Your task to perform on an android device: visit the assistant section in the google photos Image 0: 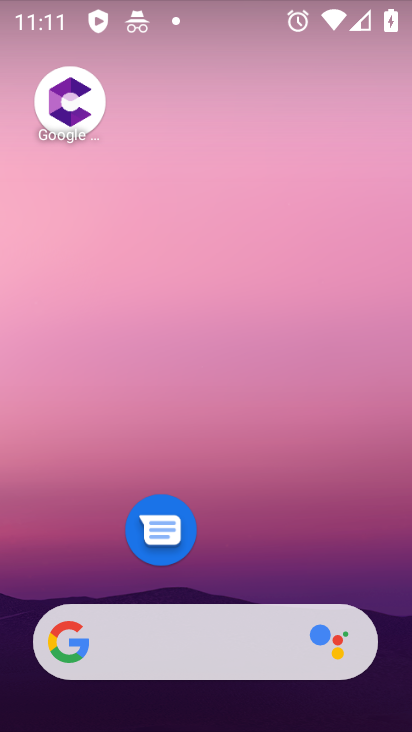
Step 0: drag from (293, 698) to (172, 195)
Your task to perform on an android device: visit the assistant section in the google photos Image 1: 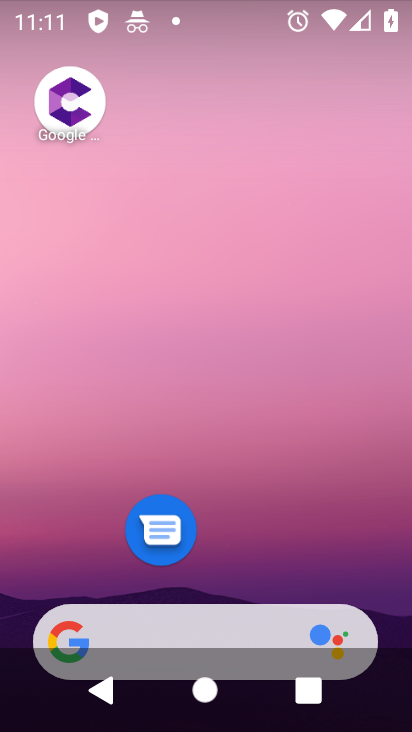
Step 1: drag from (251, 639) to (189, 111)
Your task to perform on an android device: visit the assistant section in the google photos Image 2: 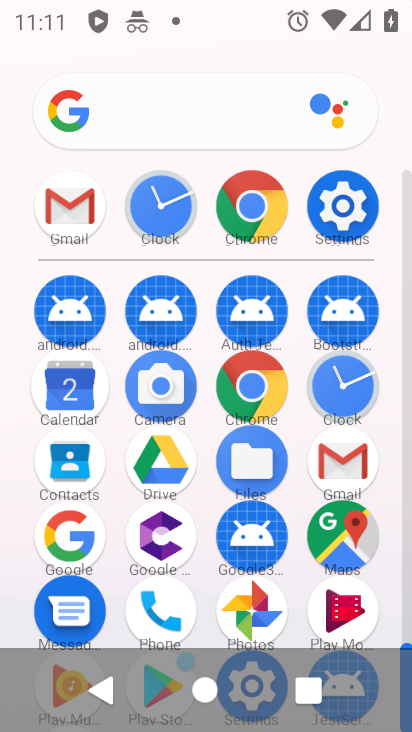
Step 2: drag from (275, 585) to (205, 101)
Your task to perform on an android device: visit the assistant section in the google photos Image 3: 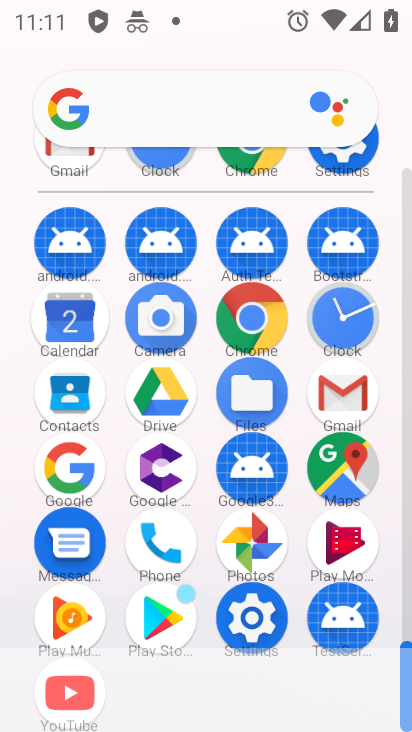
Step 3: drag from (252, 427) to (221, 86)
Your task to perform on an android device: visit the assistant section in the google photos Image 4: 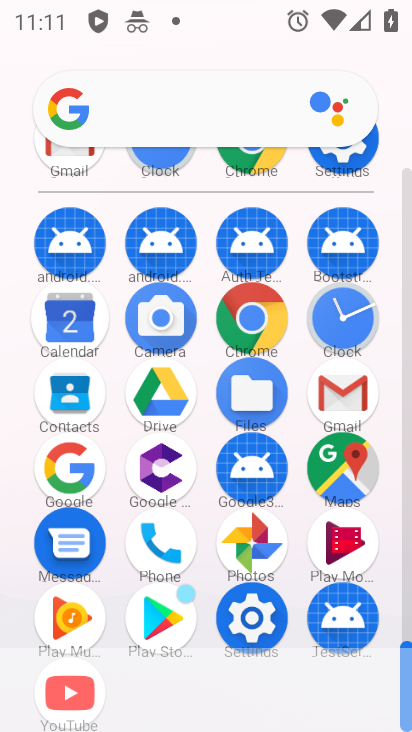
Step 4: click (259, 547)
Your task to perform on an android device: visit the assistant section in the google photos Image 5: 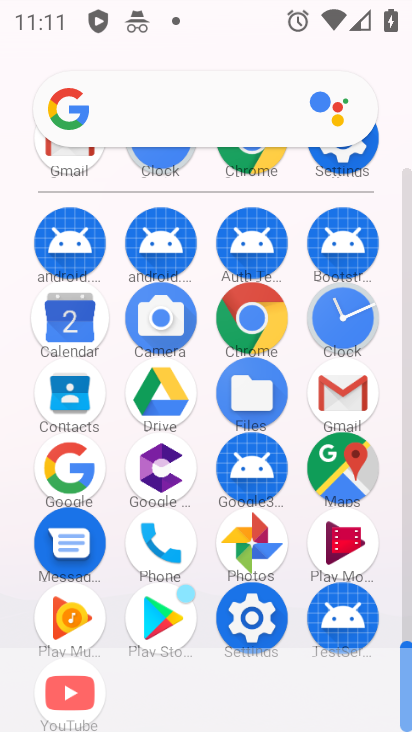
Step 5: click (259, 547)
Your task to perform on an android device: visit the assistant section in the google photos Image 6: 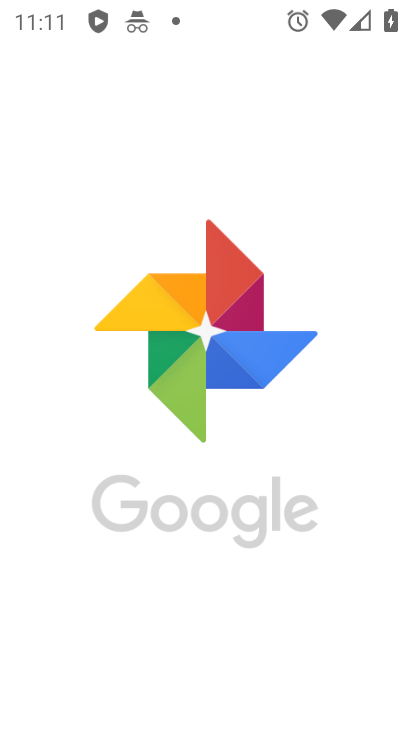
Step 6: click (256, 541)
Your task to perform on an android device: visit the assistant section in the google photos Image 7: 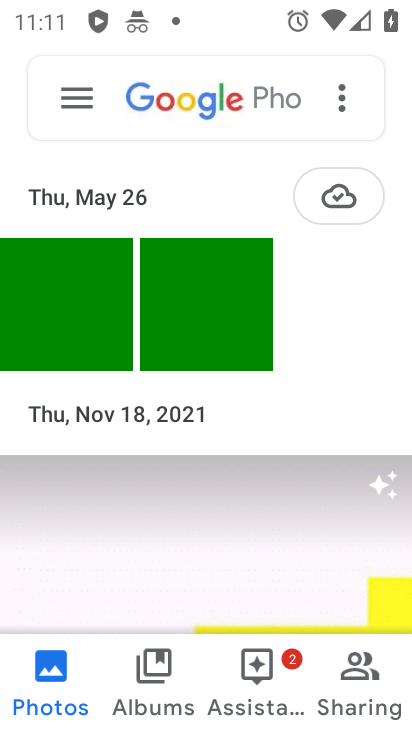
Step 7: drag from (141, 305) to (127, 234)
Your task to perform on an android device: visit the assistant section in the google photos Image 8: 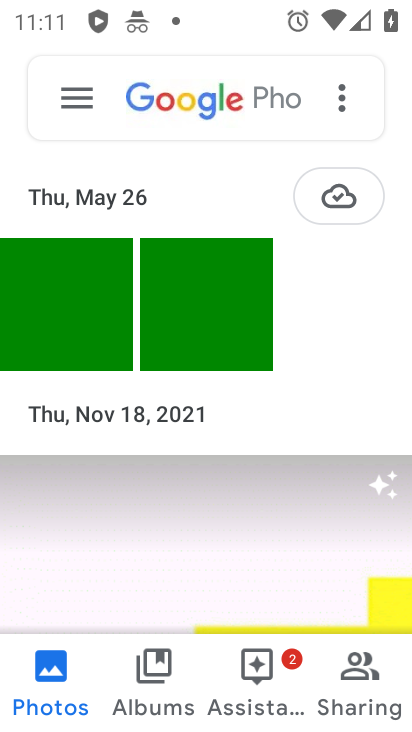
Step 8: drag from (203, 526) to (171, 238)
Your task to perform on an android device: visit the assistant section in the google photos Image 9: 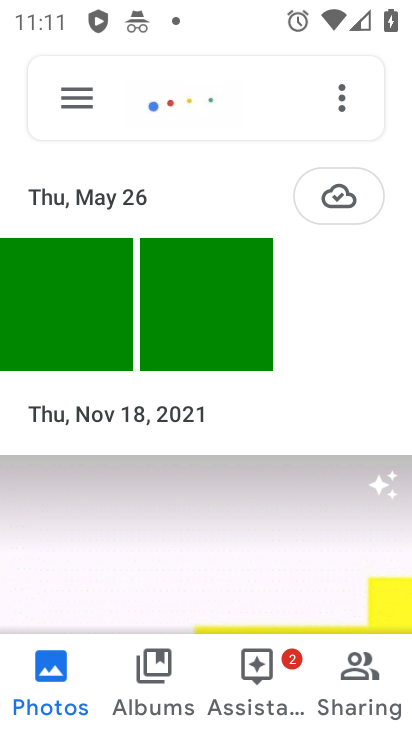
Step 9: drag from (243, 468) to (199, 148)
Your task to perform on an android device: visit the assistant section in the google photos Image 10: 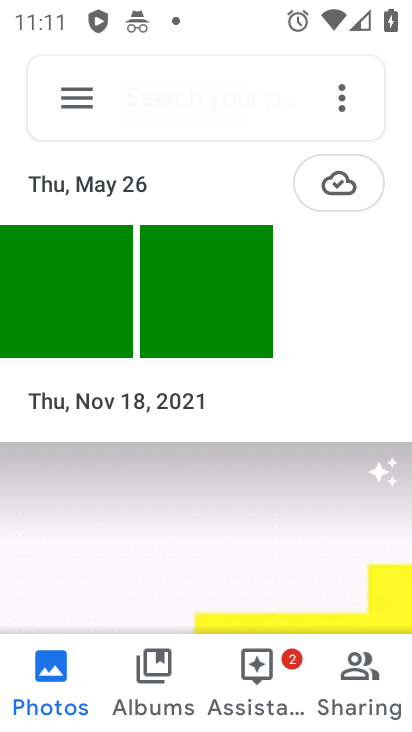
Step 10: drag from (194, 414) to (157, 157)
Your task to perform on an android device: visit the assistant section in the google photos Image 11: 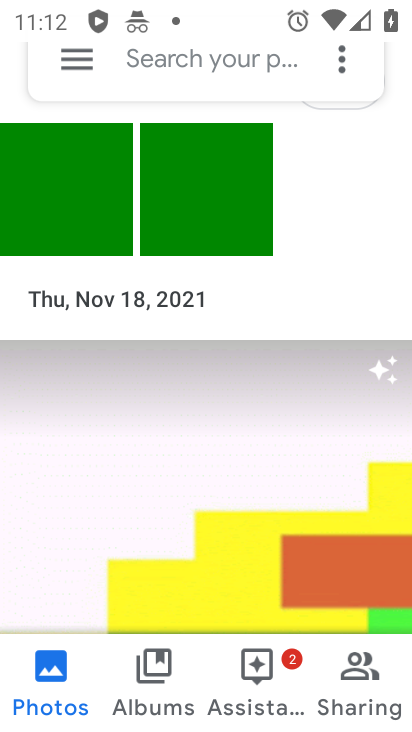
Step 11: drag from (246, 385) to (187, 107)
Your task to perform on an android device: visit the assistant section in the google photos Image 12: 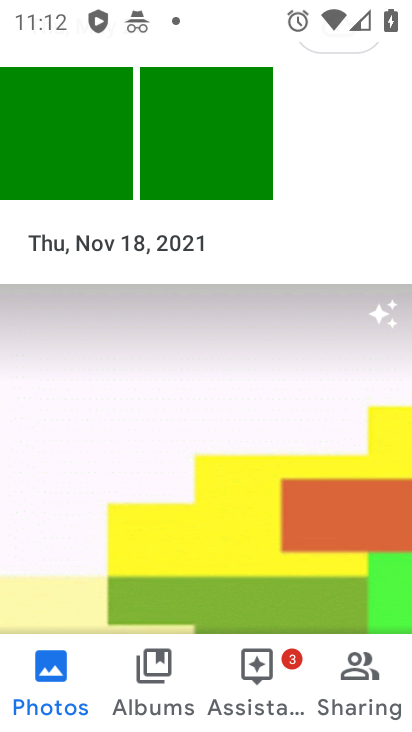
Step 12: drag from (194, 457) to (104, 183)
Your task to perform on an android device: visit the assistant section in the google photos Image 13: 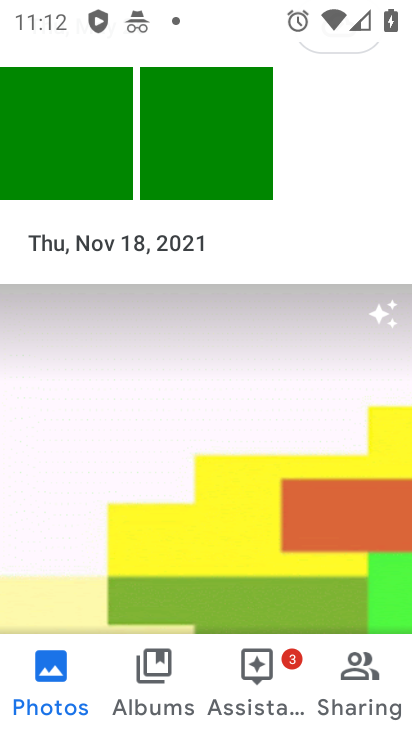
Step 13: drag from (173, 431) to (123, 128)
Your task to perform on an android device: visit the assistant section in the google photos Image 14: 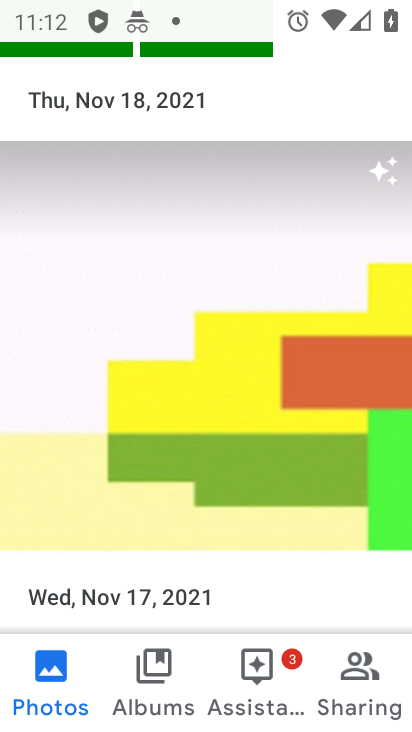
Step 14: drag from (175, 335) to (142, 102)
Your task to perform on an android device: visit the assistant section in the google photos Image 15: 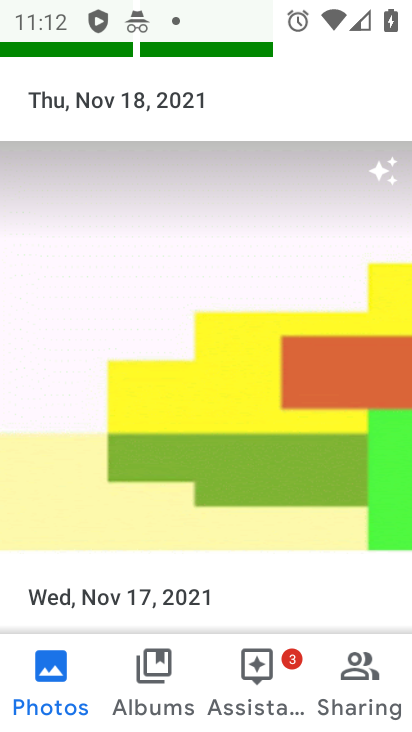
Step 15: drag from (171, 290) to (143, 163)
Your task to perform on an android device: visit the assistant section in the google photos Image 16: 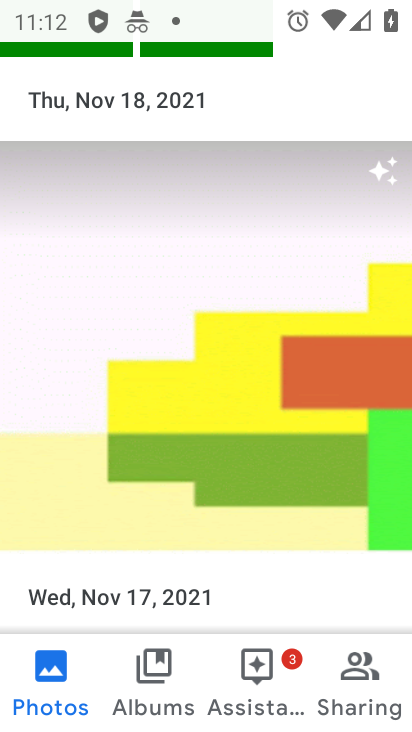
Step 16: drag from (172, 231) to (136, 44)
Your task to perform on an android device: visit the assistant section in the google photos Image 17: 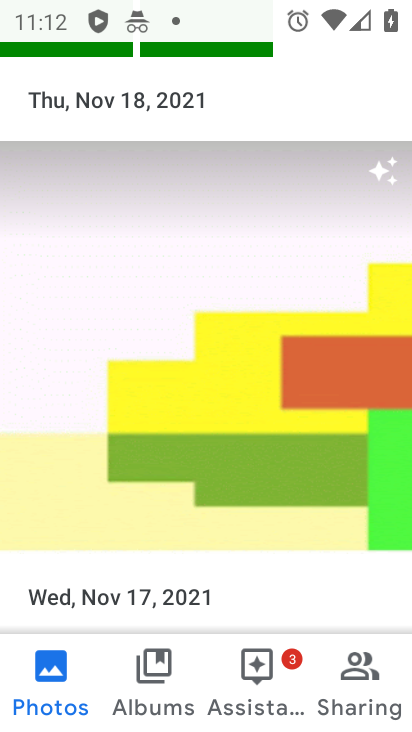
Step 17: drag from (199, 389) to (131, 102)
Your task to perform on an android device: visit the assistant section in the google photos Image 18: 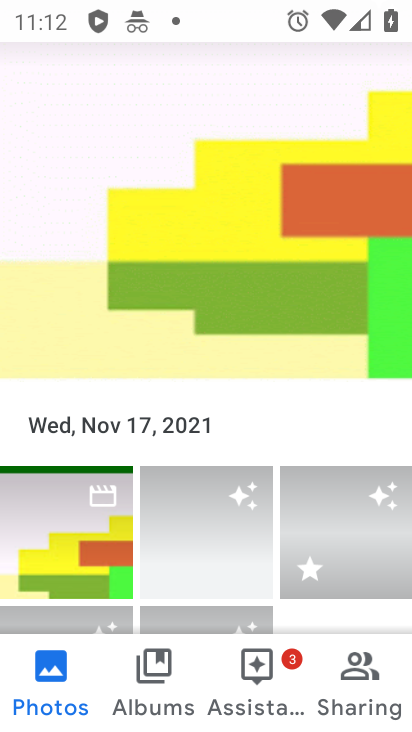
Step 18: drag from (204, 482) to (146, 178)
Your task to perform on an android device: visit the assistant section in the google photos Image 19: 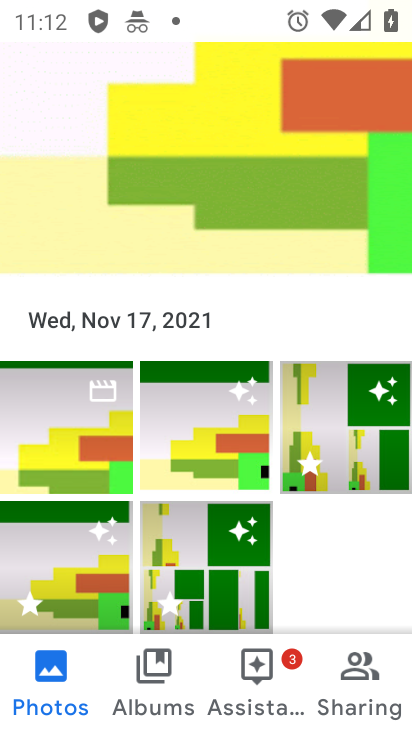
Step 19: drag from (173, 360) to (153, 107)
Your task to perform on an android device: visit the assistant section in the google photos Image 20: 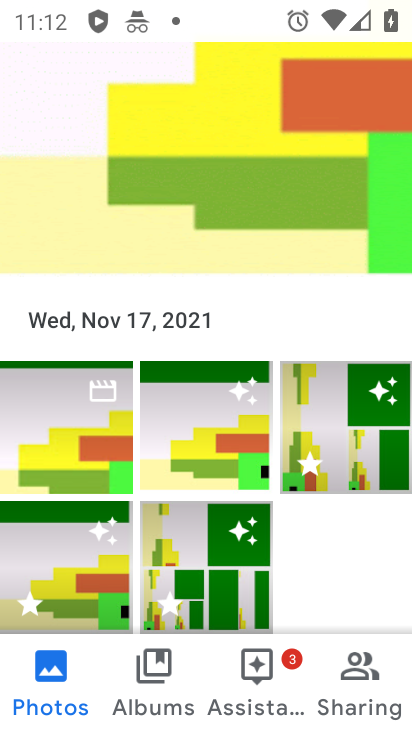
Step 20: drag from (199, 292) to (185, 157)
Your task to perform on an android device: visit the assistant section in the google photos Image 21: 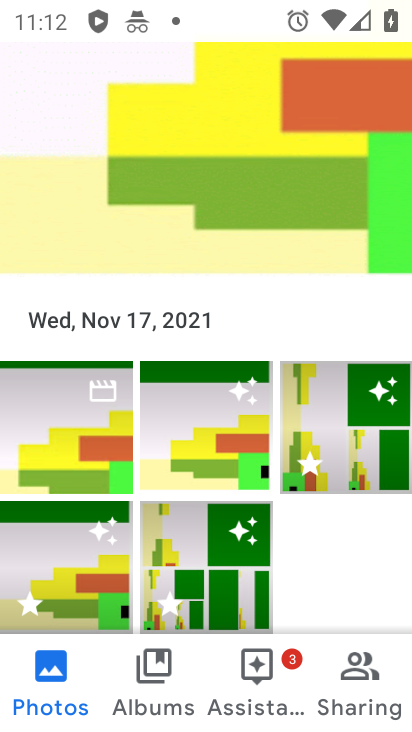
Step 21: drag from (155, 478) to (106, 202)
Your task to perform on an android device: visit the assistant section in the google photos Image 22: 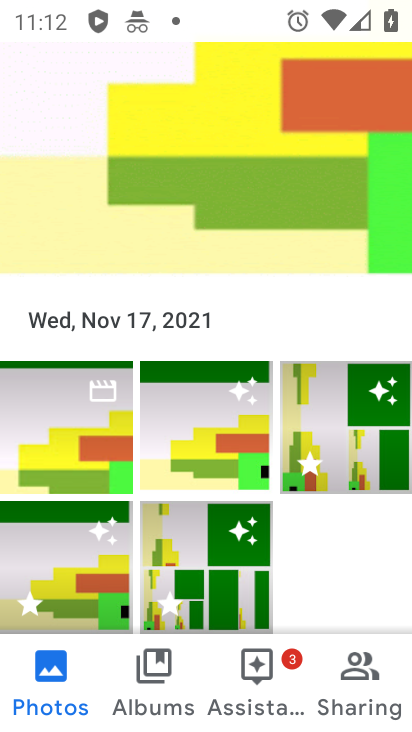
Step 22: drag from (169, 543) to (139, 176)
Your task to perform on an android device: visit the assistant section in the google photos Image 23: 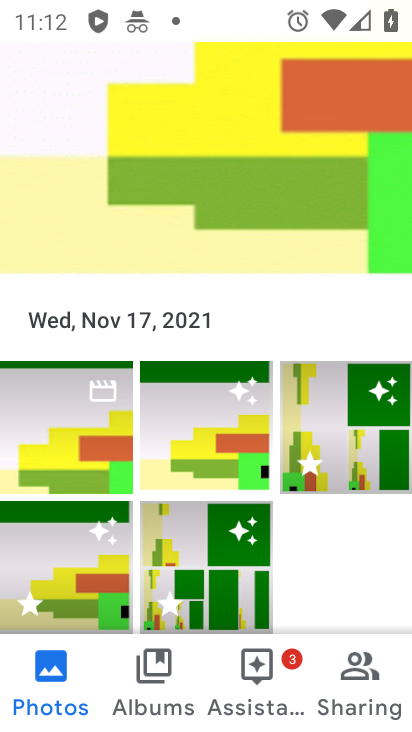
Step 23: drag from (193, 530) to (139, 133)
Your task to perform on an android device: visit the assistant section in the google photos Image 24: 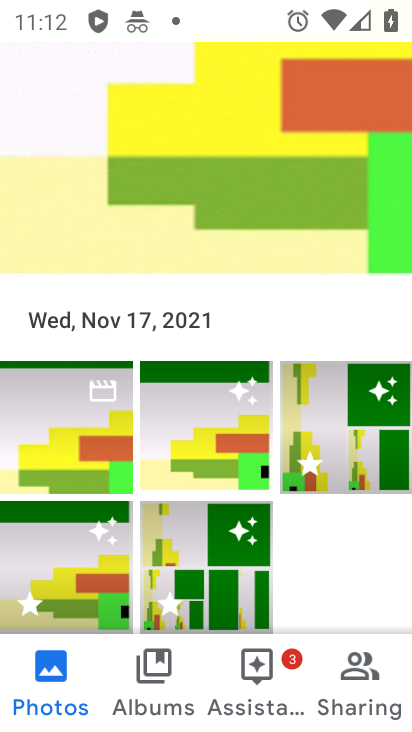
Step 24: drag from (258, 446) to (208, 219)
Your task to perform on an android device: visit the assistant section in the google photos Image 25: 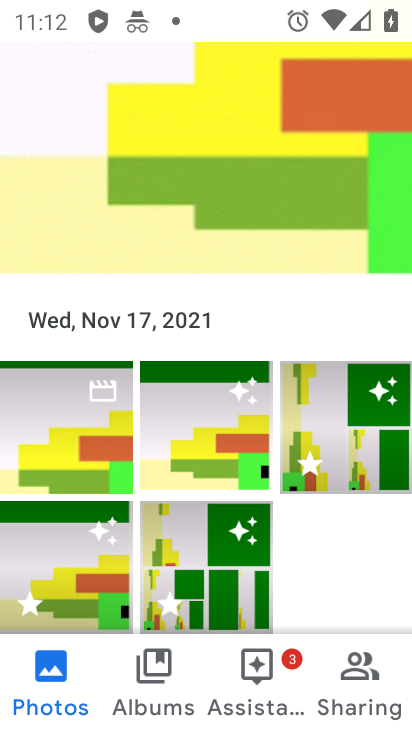
Step 25: drag from (245, 546) to (180, 199)
Your task to perform on an android device: visit the assistant section in the google photos Image 26: 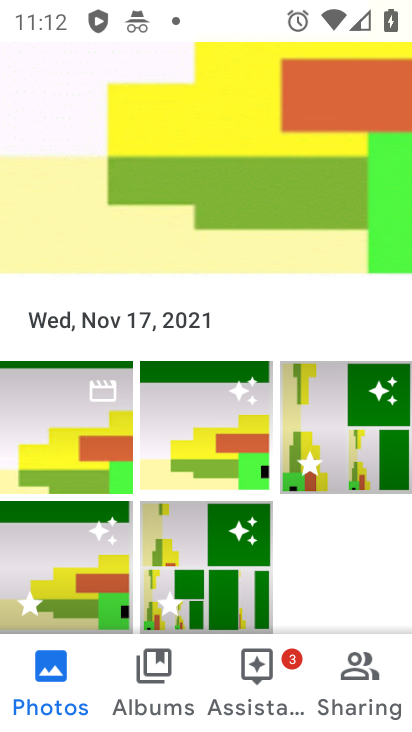
Step 26: drag from (218, 544) to (184, 239)
Your task to perform on an android device: visit the assistant section in the google photos Image 27: 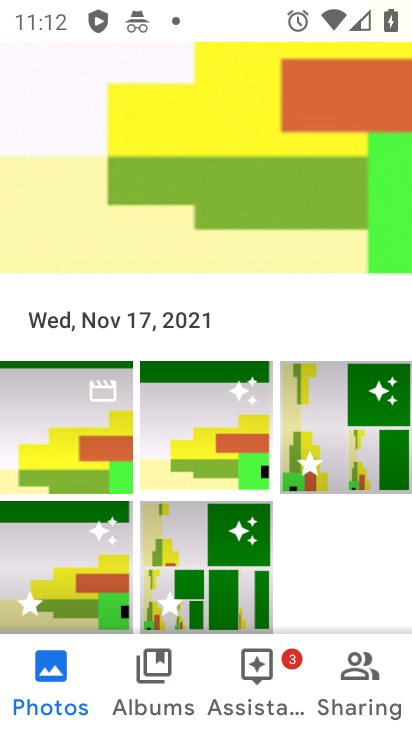
Step 27: drag from (208, 563) to (188, 295)
Your task to perform on an android device: visit the assistant section in the google photos Image 28: 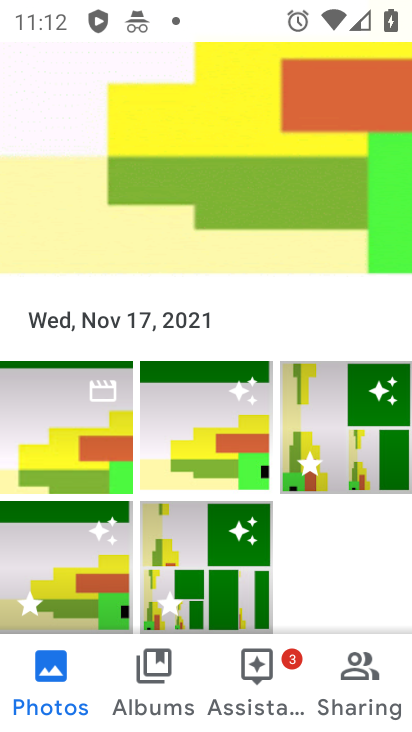
Step 28: drag from (243, 431) to (218, 175)
Your task to perform on an android device: visit the assistant section in the google photos Image 29: 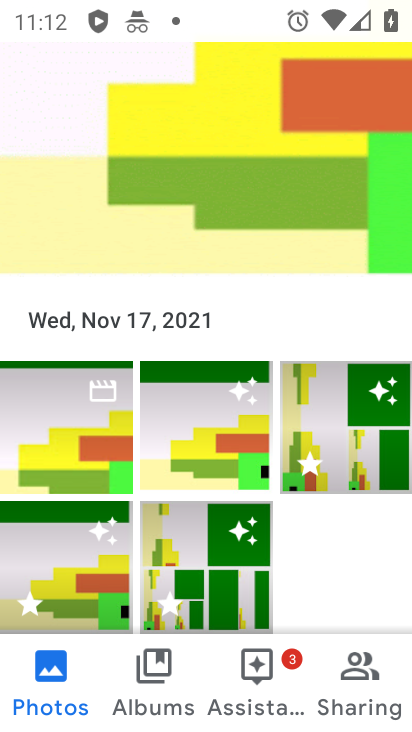
Step 29: drag from (250, 471) to (250, 346)
Your task to perform on an android device: visit the assistant section in the google photos Image 30: 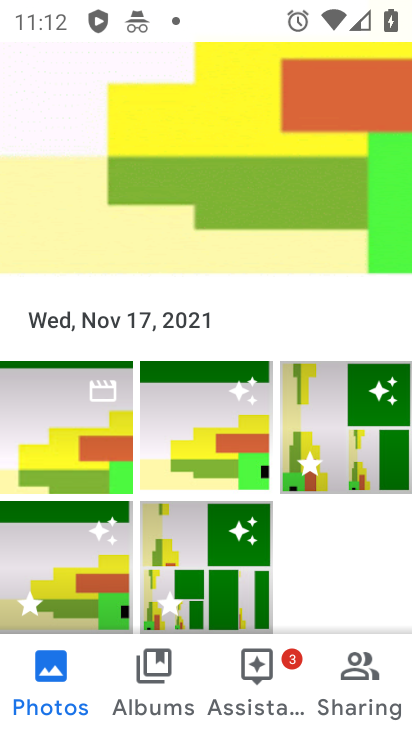
Step 30: click (229, 448)
Your task to perform on an android device: visit the assistant section in the google photos Image 31: 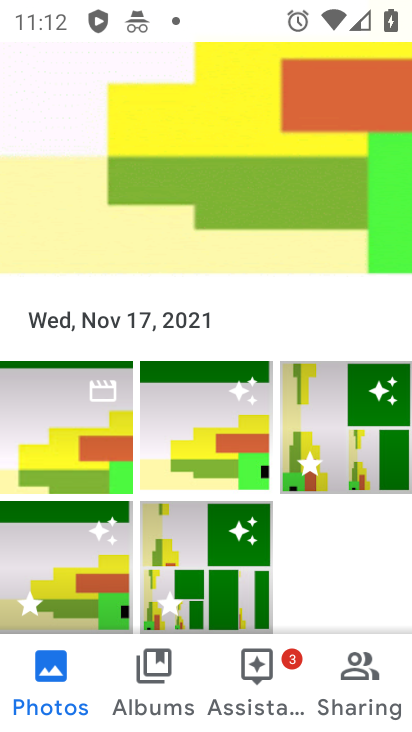
Step 31: click (256, 676)
Your task to perform on an android device: visit the assistant section in the google photos Image 32: 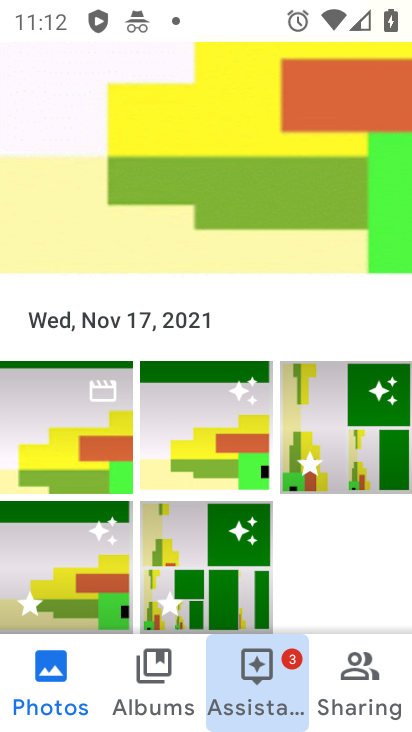
Step 32: click (257, 673)
Your task to perform on an android device: visit the assistant section in the google photos Image 33: 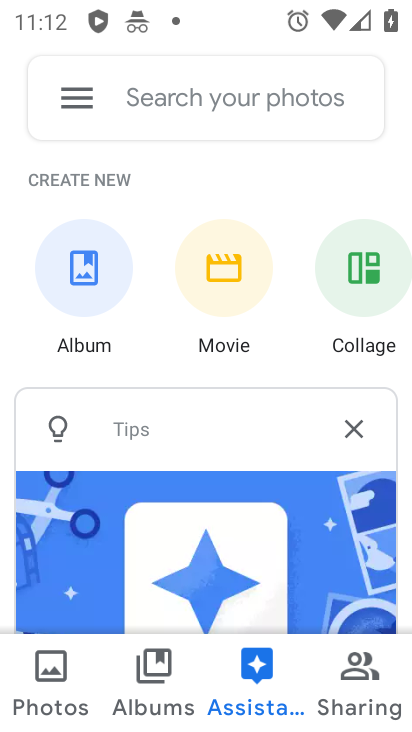
Step 33: task complete